Your task to perform on an android device: Open notification settings Image 0: 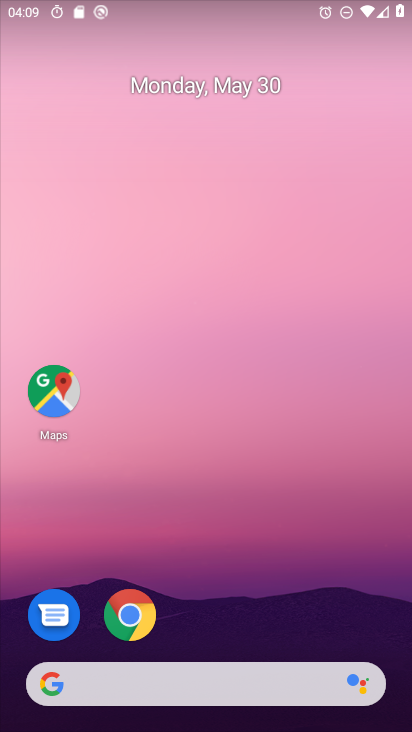
Step 0: drag from (273, 605) to (303, 120)
Your task to perform on an android device: Open notification settings Image 1: 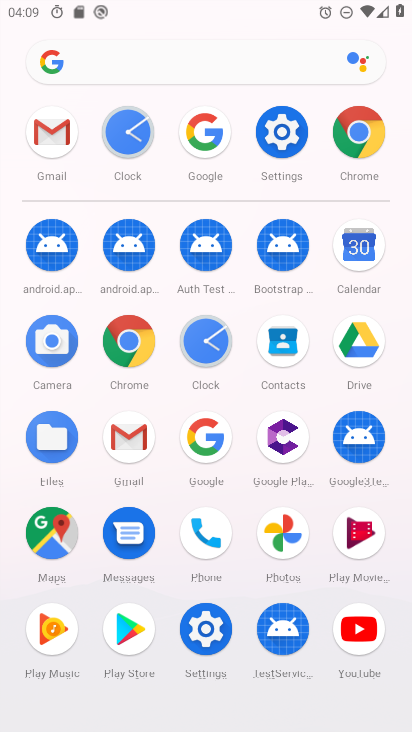
Step 1: click (280, 130)
Your task to perform on an android device: Open notification settings Image 2: 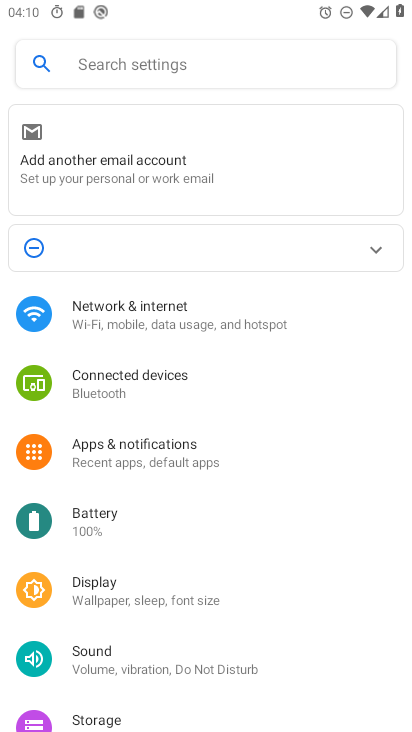
Step 2: click (134, 463)
Your task to perform on an android device: Open notification settings Image 3: 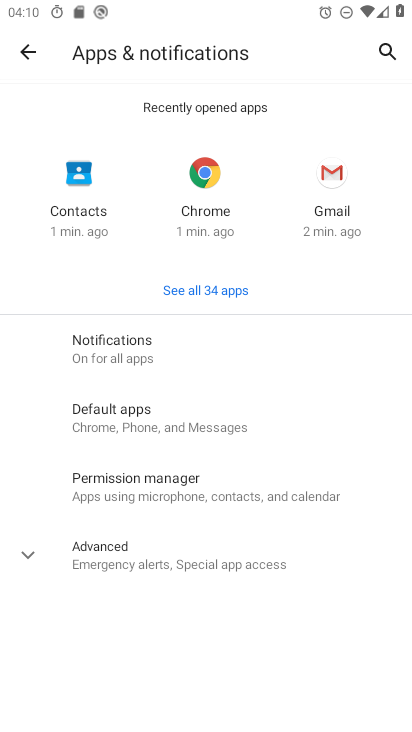
Step 3: click (125, 344)
Your task to perform on an android device: Open notification settings Image 4: 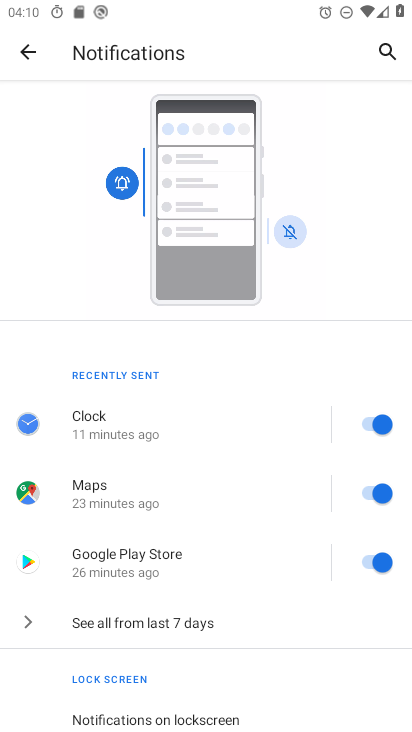
Step 4: task complete